Your task to perform on an android device: empty trash in google photos Image 0: 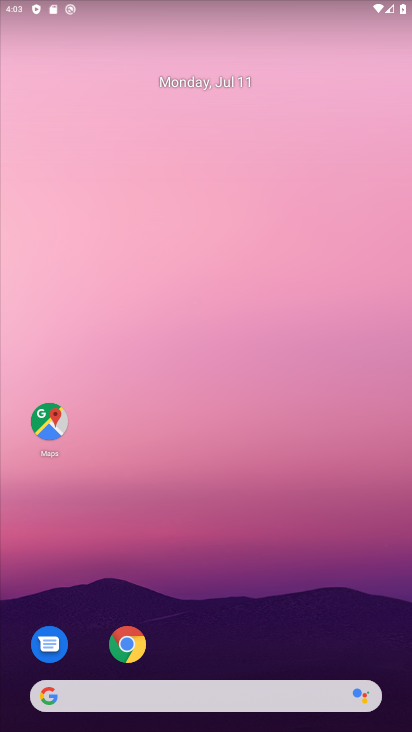
Step 0: drag from (21, 718) to (257, 133)
Your task to perform on an android device: empty trash in google photos Image 1: 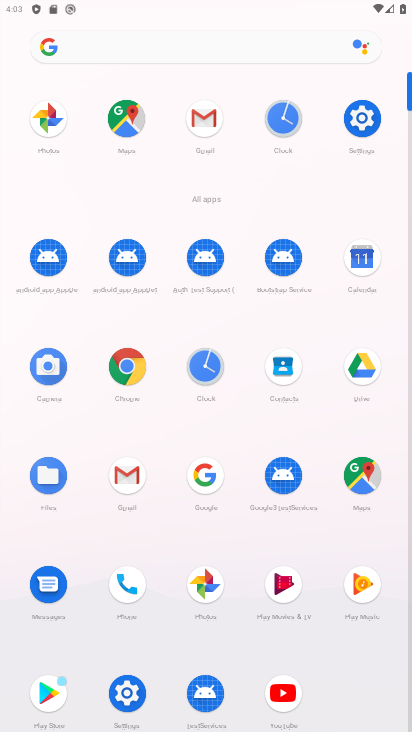
Step 1: click (203, 593)
Your task to perform on an android device: empty trash in google photos Image 2: 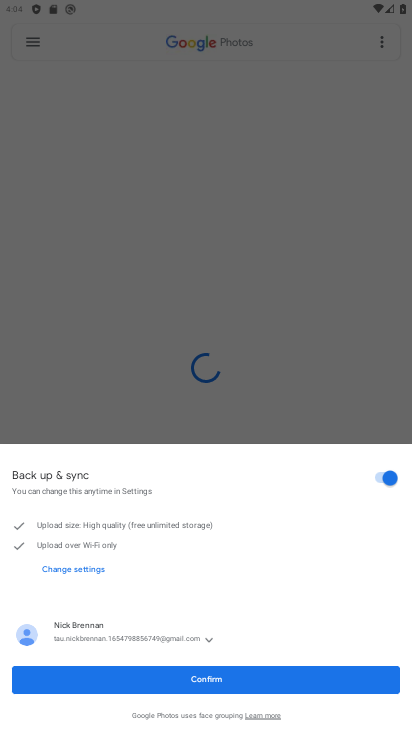
Step 2: click (151, 677)
Your task to perform on an android device: empty trash in google photos Image 3: 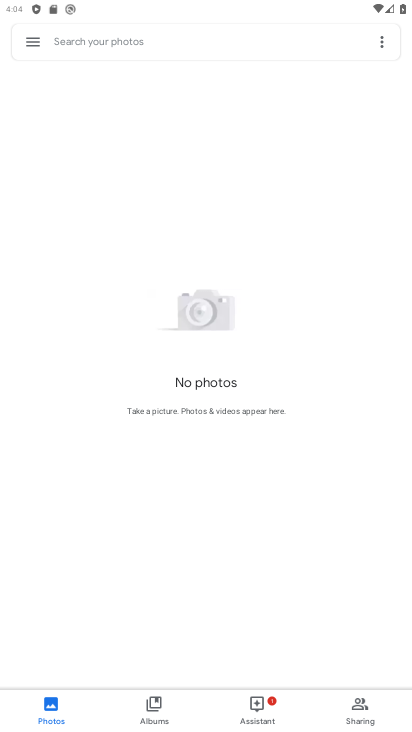
Step 3: click (28, 46)
Your task to perform on an android device: empty trash in google photos Image 4: 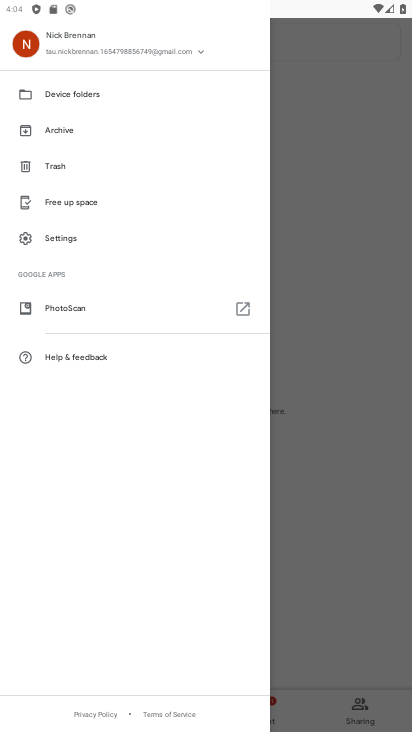
Step 4: click (63, 172)
Your task to perform on an android device: empty trash in google photos Image 5: 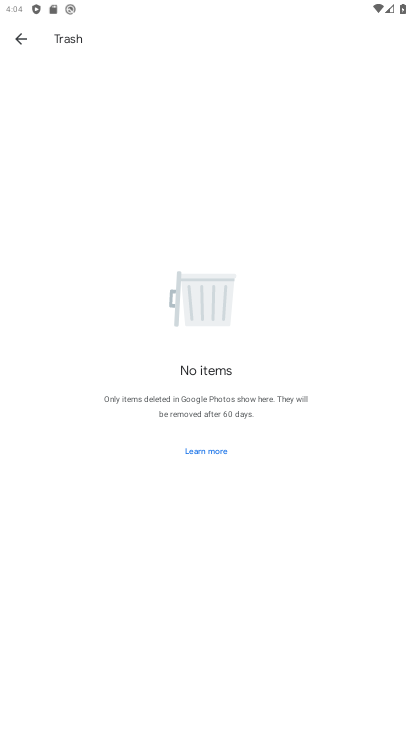
Step 5: task complete